Your task to perform on an android device: See recent photos Image 0: 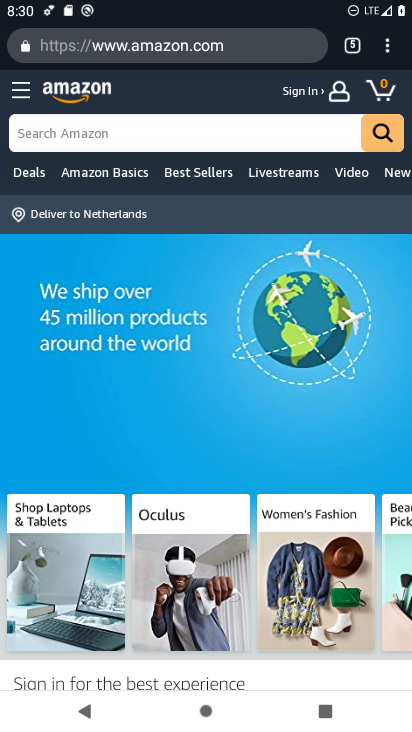
Step 0: press home button
Your task to perform on an android device: See recent photos Image 1: 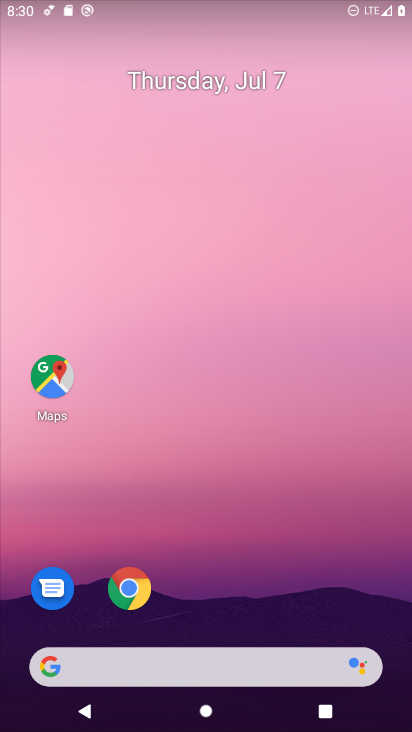
Step 1: drag from (217, 633) to (219, 184)
Your task to perform on an android device: See recent photos Image 2: 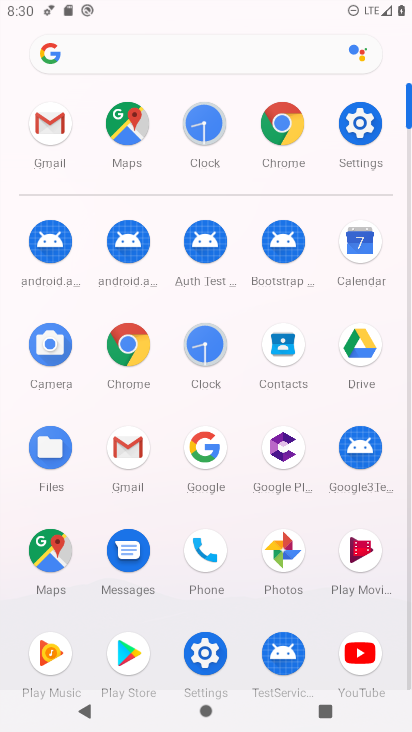
Step 2: click (277, 555)
Your task to perform on an android device: See recent photos Image 3: 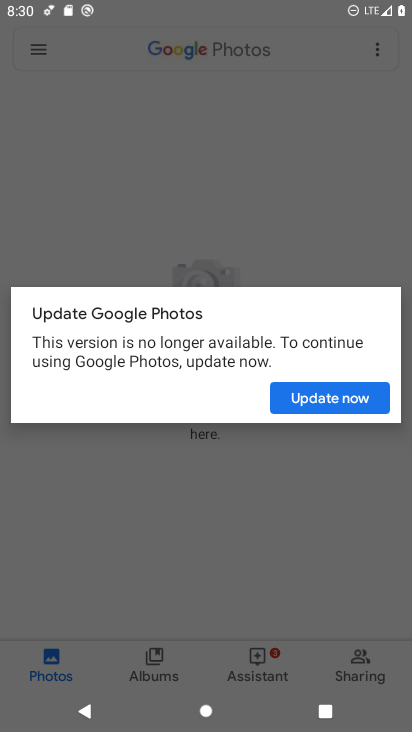
Step 3: click (291, 393)
Your task to perform on an android device: See recent photos Image 4: 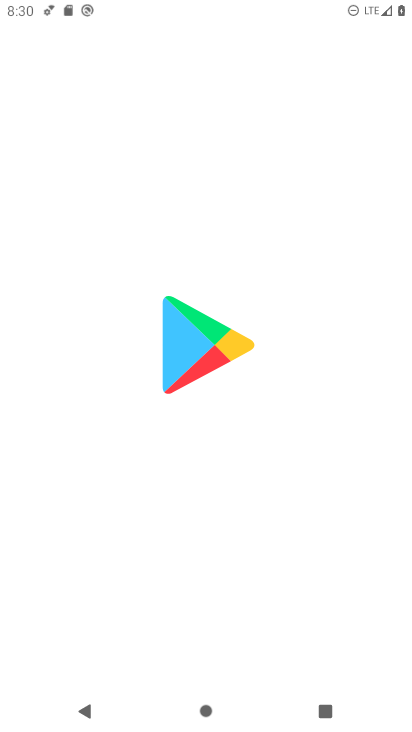
Step 4: press back button
Your task to perform on an android device: See recent photos Image 5: 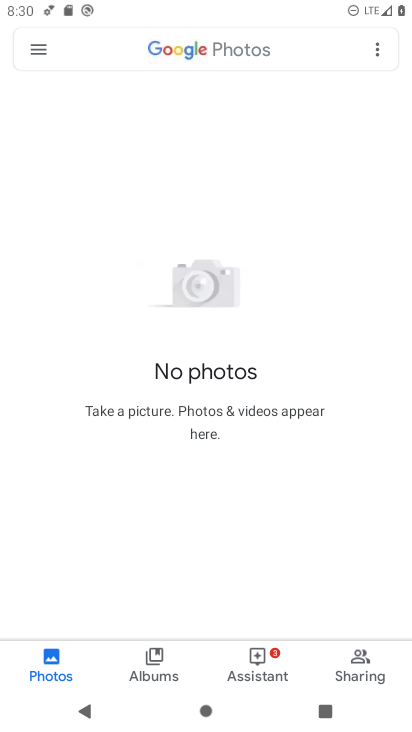
Step 5: click (152, 651)
Your task to perform on an android device: See recent photos Image 6: 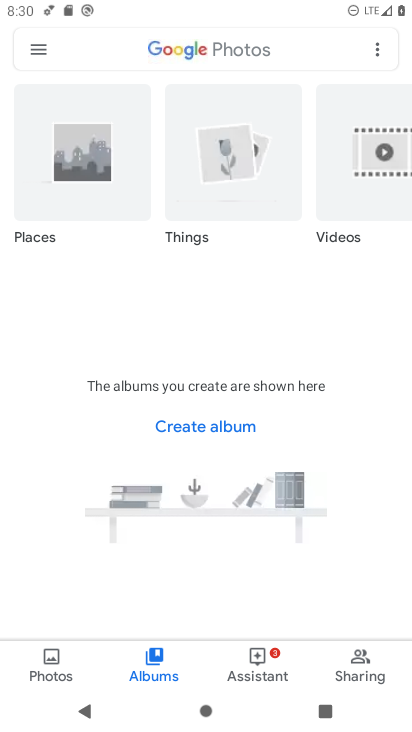
Step 6: task complete